Your task to perform on an android device: View the shopping cart on walmart.com. Add lenovo thinkpad to the cart on walmart.com Image 0: 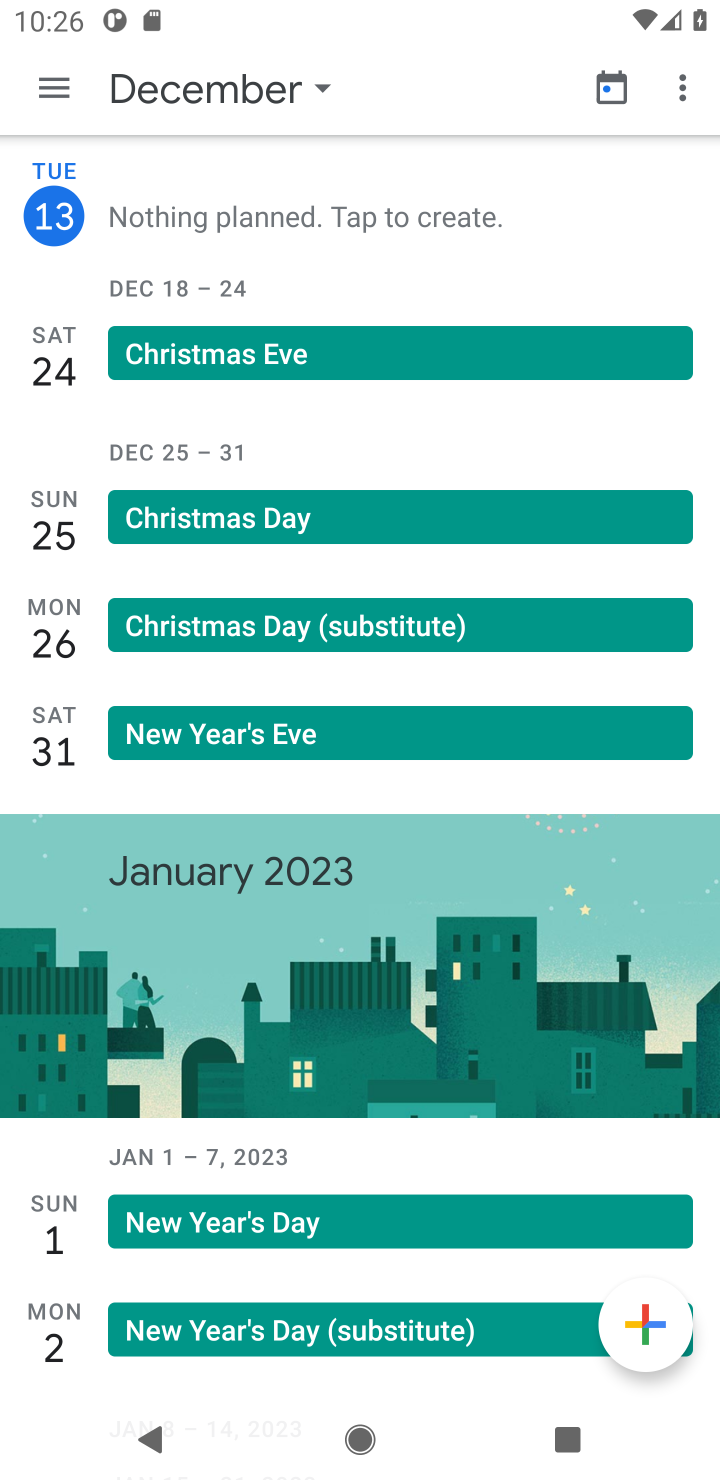
Step 0: press home button
Your task to perform on an android device: View the shopping cart on walmart.com. Add lenovo thinkpad to the cart on walmart.com Image 1: 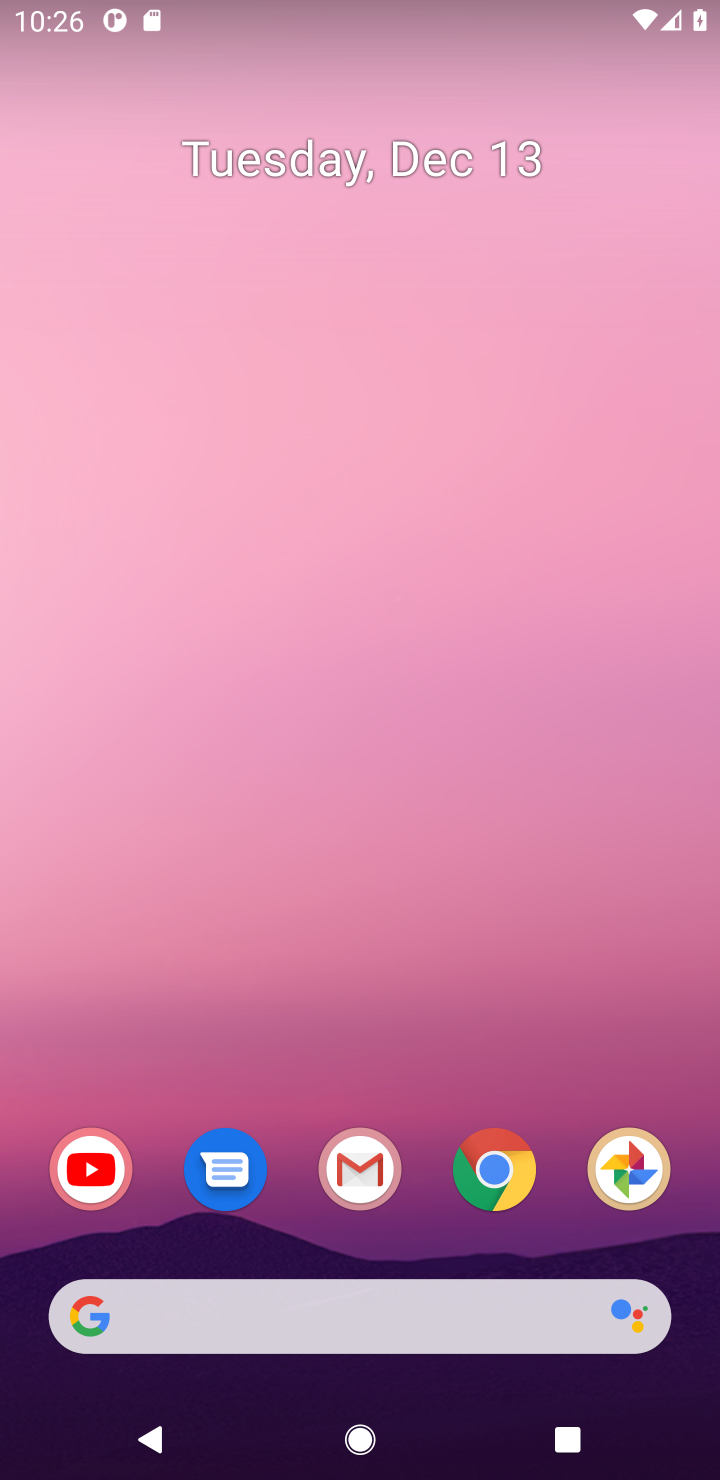
Step 1: click (432, 1340)
Your task to perform on an android device: View the shopping cart on walmart.com. Add lenovo thinkpad to the cart on walmart.com Image 2: 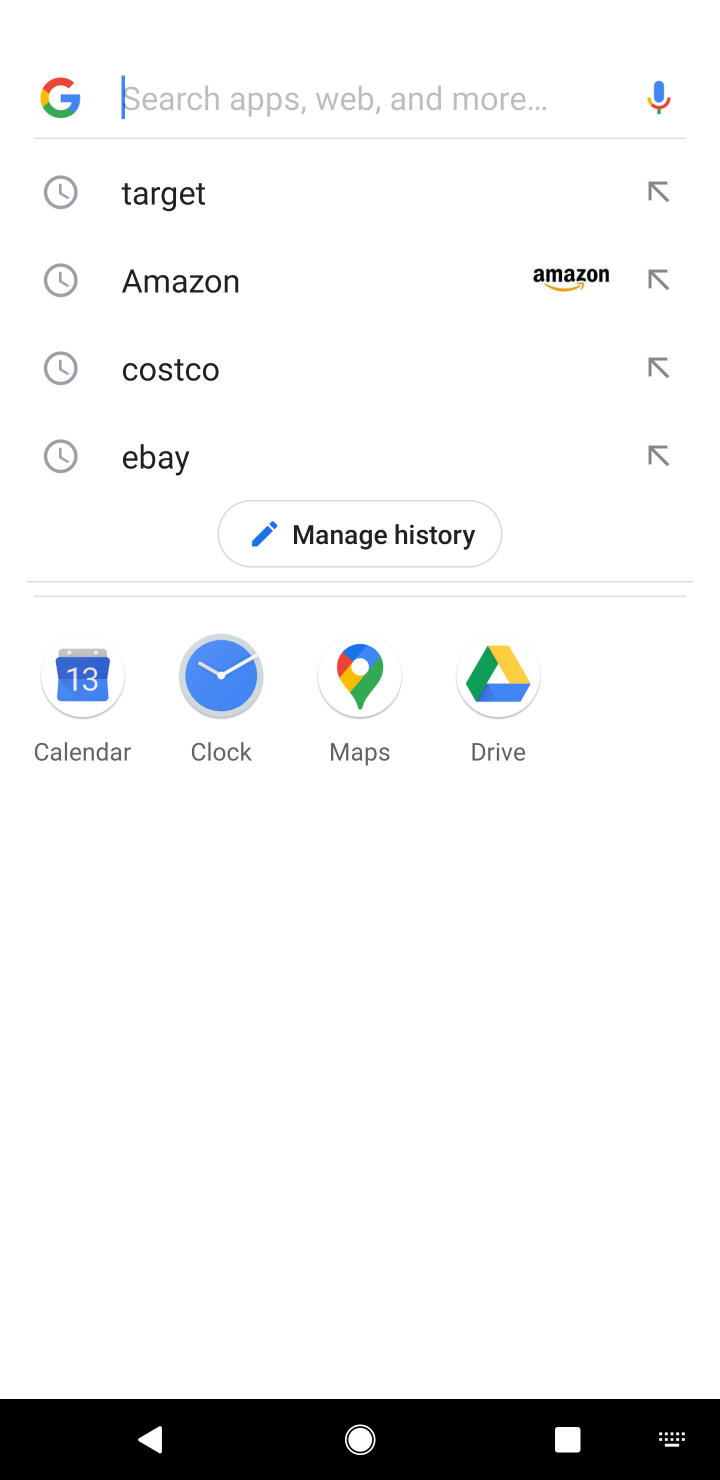
Step 2: type "walmart"
Your task to perform on an android device: View the shopping cart on walmart.com. Add lenovo thinkpad to the cart on walmart.com Image 3: 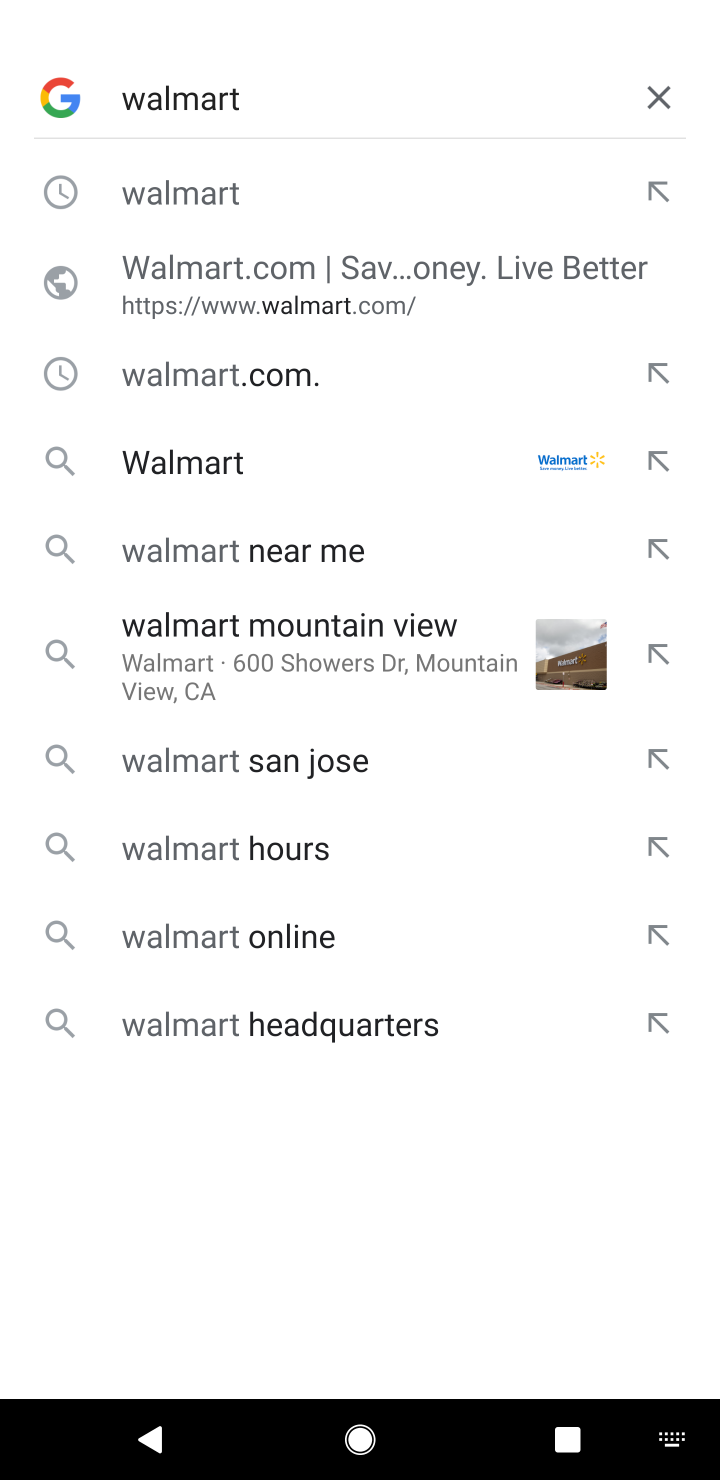
Step 3: click (279, 328)
Your task to perform on an android device: View the shopping cart on walmart.com. Add lenovo thinkpad to the cart on walmart.com Image 4: 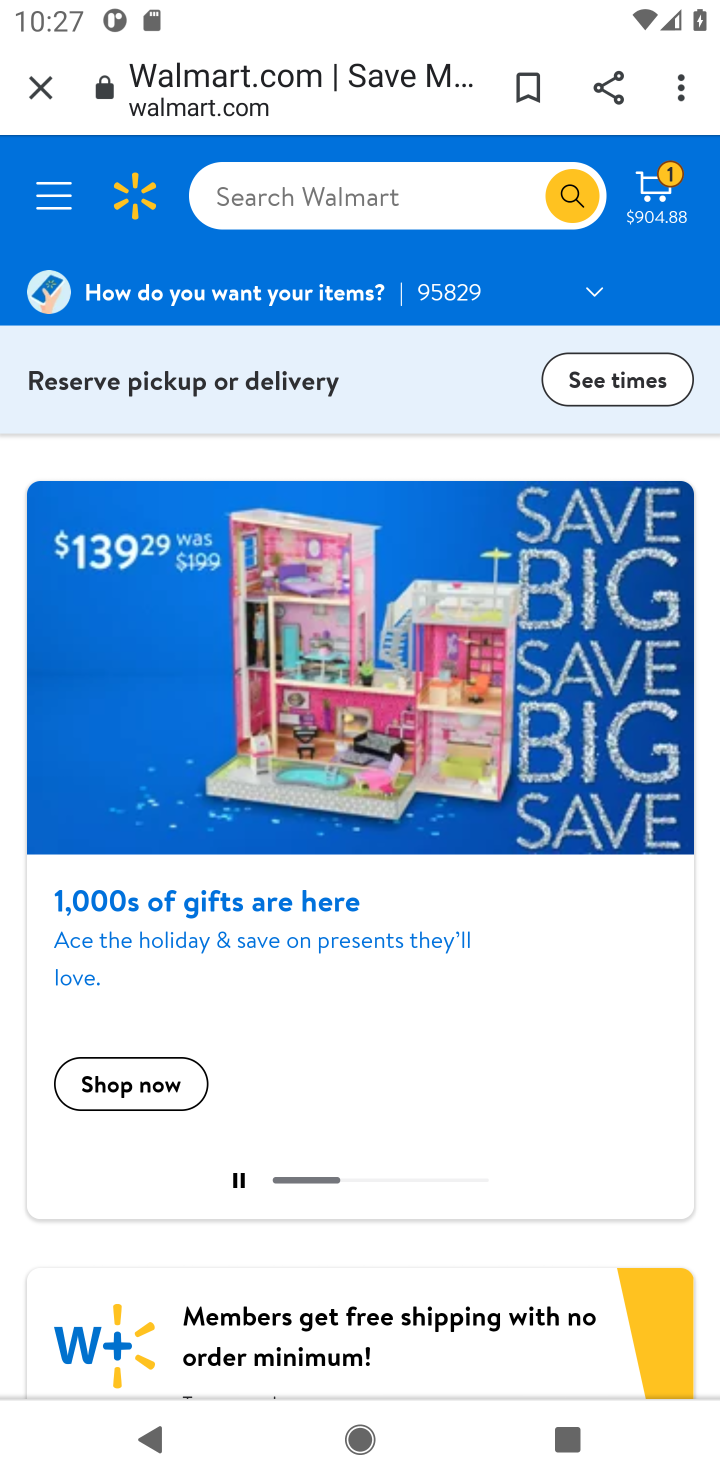
Step 4: click (410, 199)
Your task to perform on an android device: View the shopping cart on walmart.com. Add lenovo thinkpad to the cart on walmart.com Image 5: 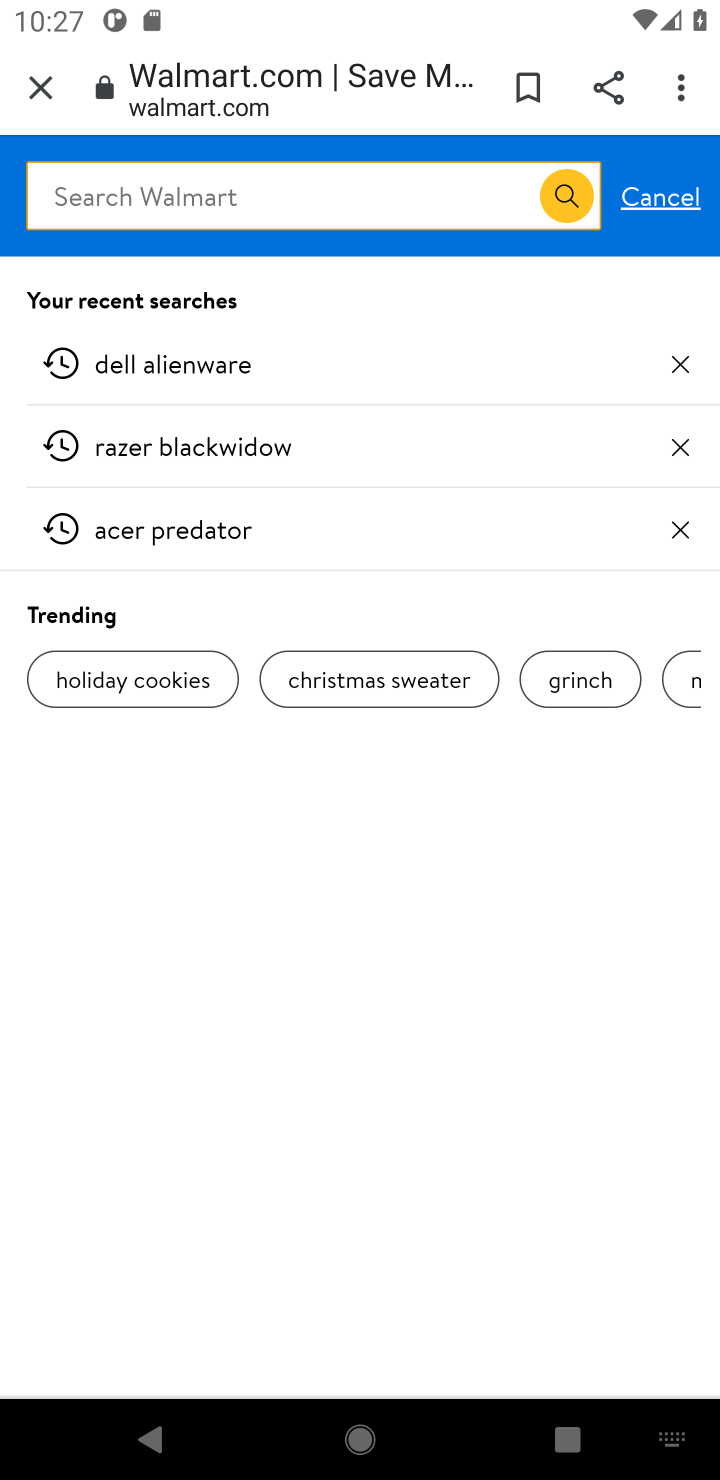
Step 5: type "lenovo thinkpad"
Your task to perform on an android device: View the shopping cart on walmart.com. Add lenovo thinkpad to the cart on walmart.com Image 6: 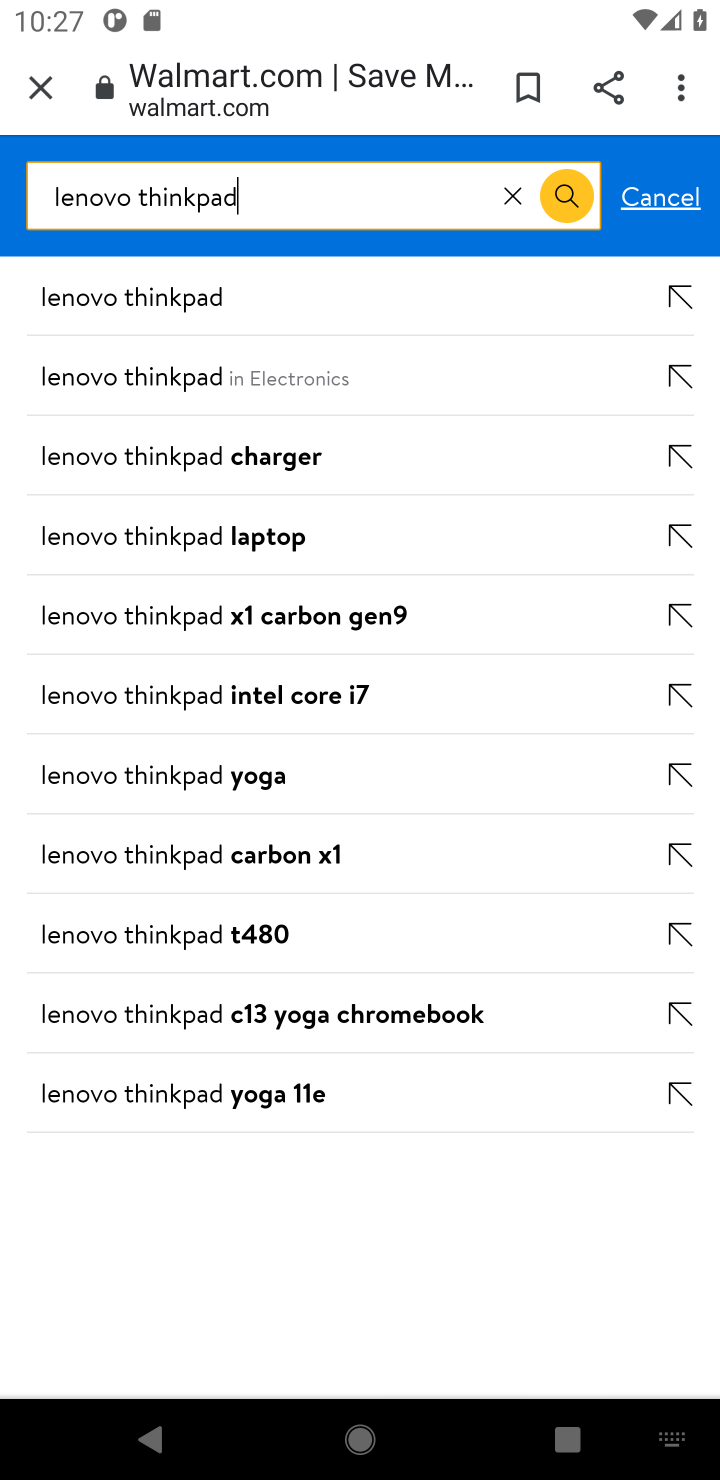
Step 6: click (189, 298)
Your task to perform on an android device: View the shopping cart on walmart.com. Add lenovo thinkpad to the cart on walmart.com Image 7: 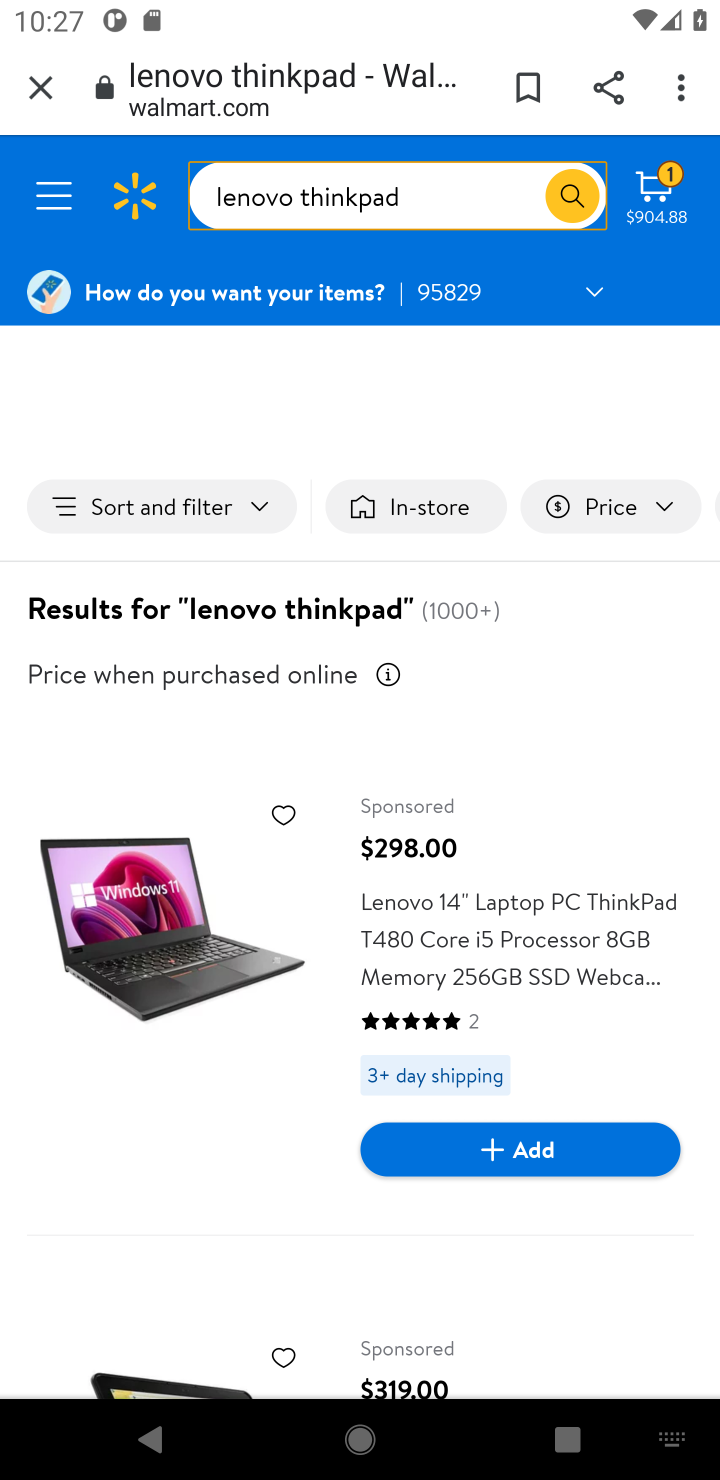
Step 7: click (455, 1174)
Your task to perform on an android device: View the shopping cart on walmart.com. Add lenovo thinkpad to the cart on walmart.com Image 8: 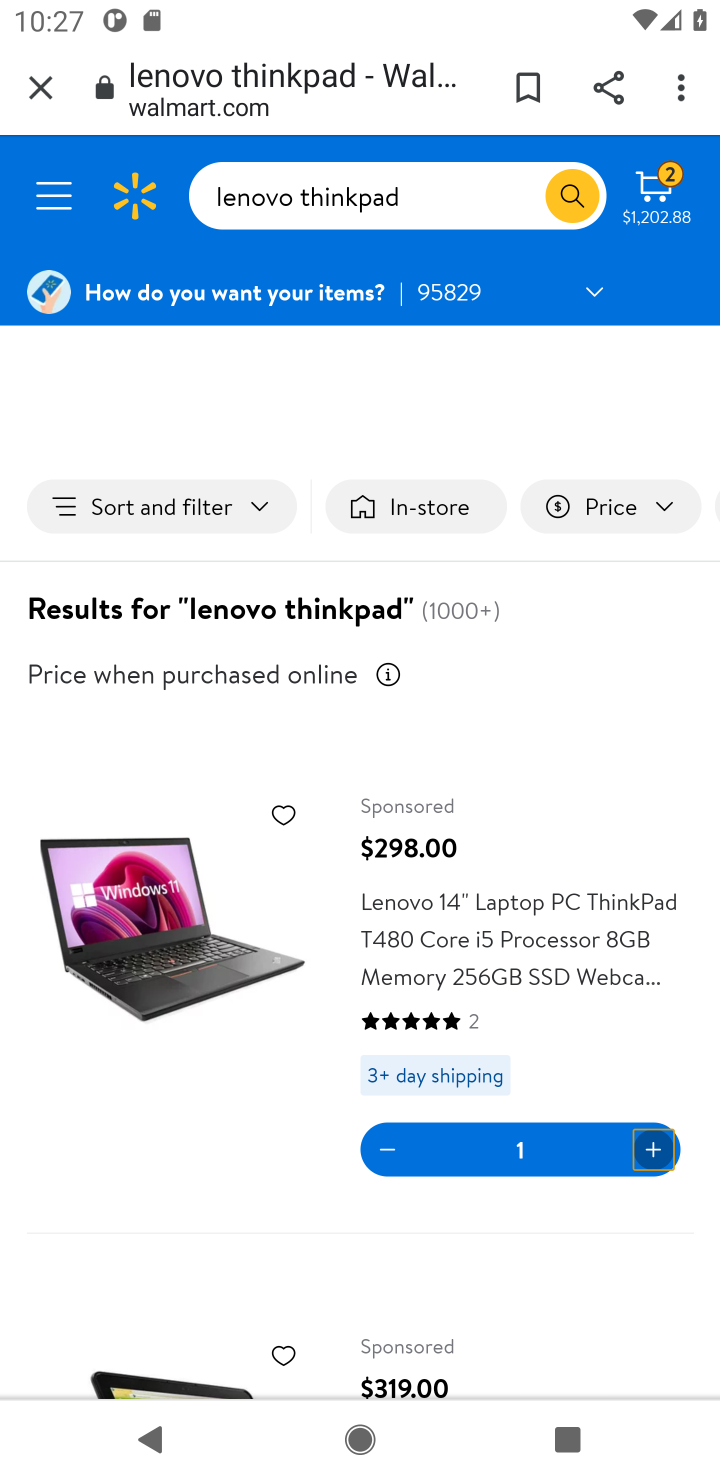
Step 8: task complete